Your task to perform on an android device: turn smart compose on in the gmail app Image 0: 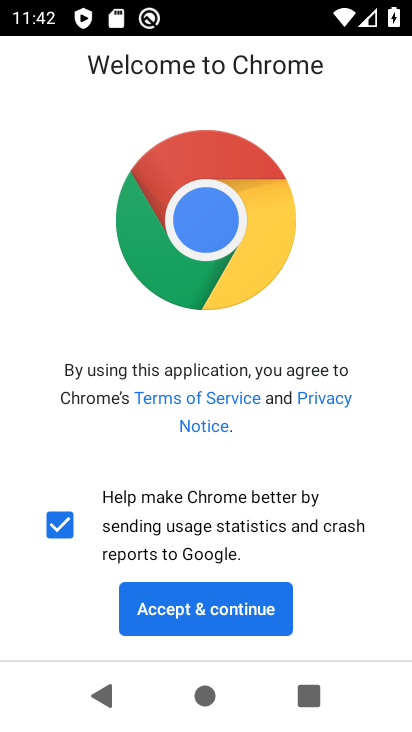
Step 0: press home button
Your task to perform on an android device: turn smart compose on in the gmail app Image 1: 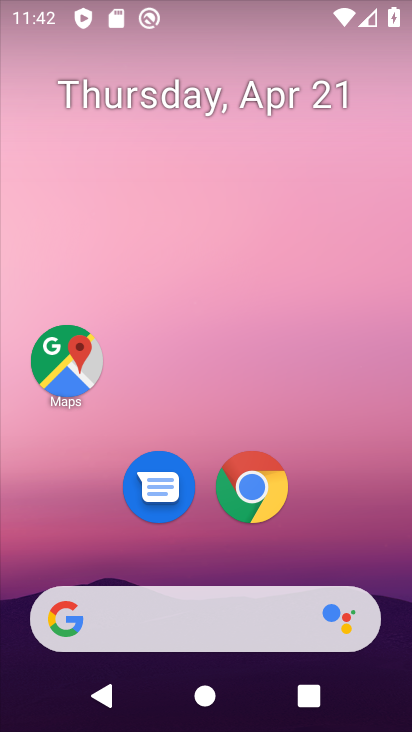
Step 1: drag from (196, 566) to (118, 110)
Your task to perform on an android device: turn smart compose on in the gmail app Image 2: 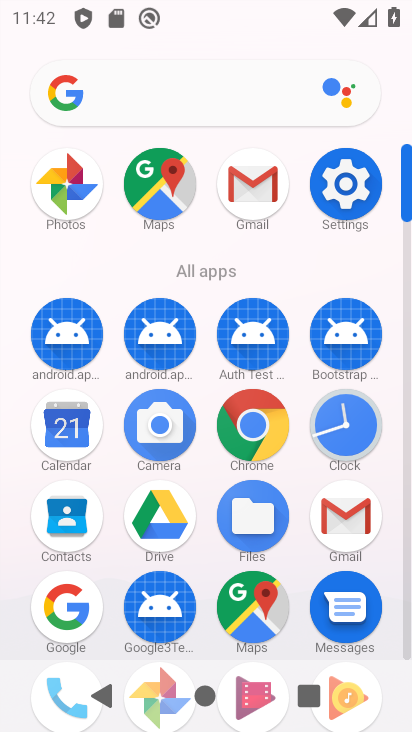
Step 2: click (234, 189)
Your task to perform on an android device: turn smart compose on in the gmail app Image 3: 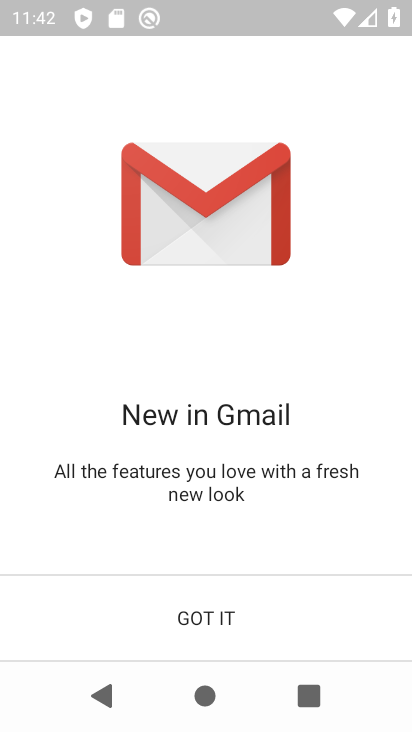
Step 3: click (275, 608)
Your task to perform on an android device: turn smart compose on in the gmail app Image 4: 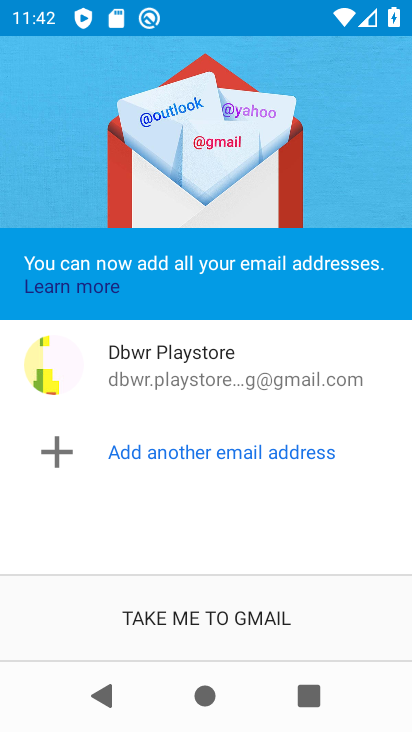
Step 4: click (275, 608)
Your task to perform on an android device: turn smart compose on in the gmail app Image 5: 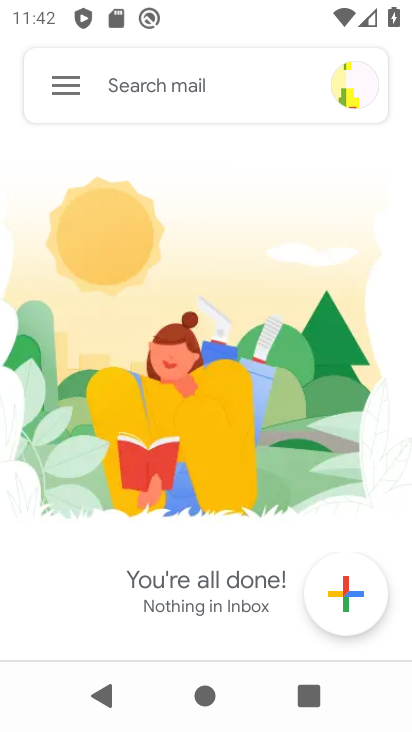
Step 5: click (65, 81)
Your task to perform on an android device: turn smart compose on in the gmail app Image 6: 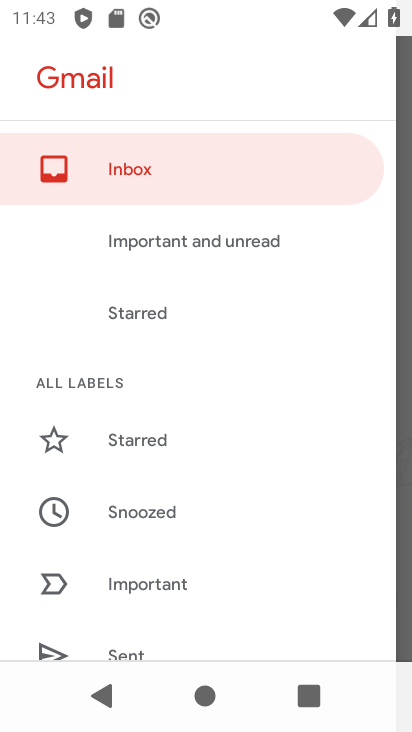
Step 6: drag from (153, 578) to (204, 210)
Your task to perform on an android device: turn smart compose on in the gmail app Image 7: 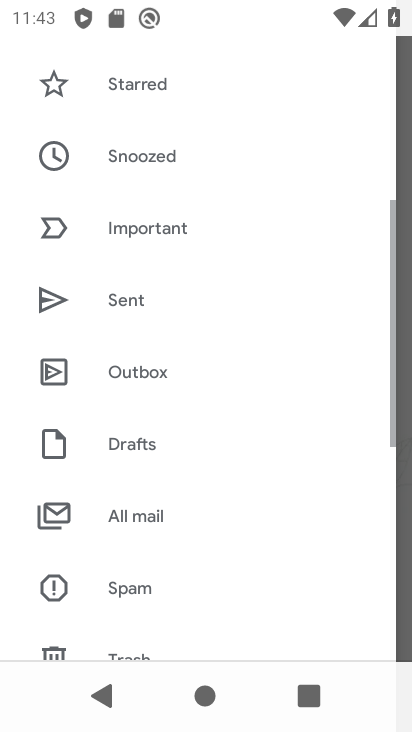
Step 7: drag from (106, 570) to (165, 263)
Your task to perform on an android device: turn smart compose on in the gmail app Image 8: 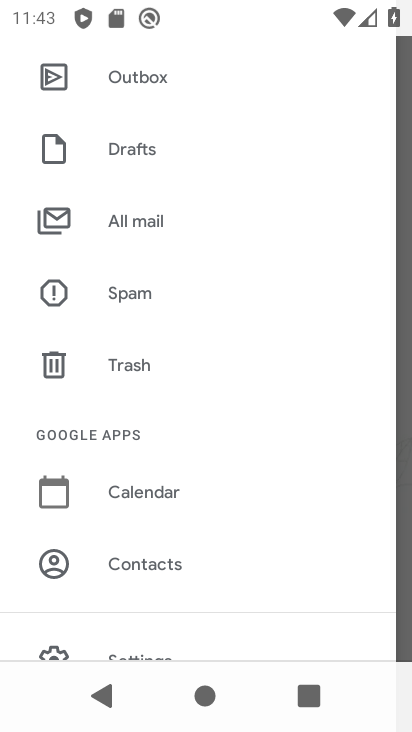
Step 8: drag from (83, 644) to (153, 242)
Your task to perform on an android device: turn smart compose on in the gmail app Image 9: 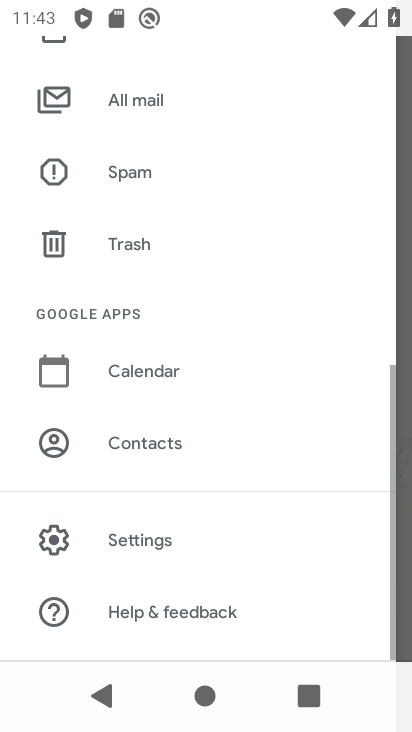
Step 9: click (160, 546)
Your task to perform on an android device: turn smart compose on in the gmail app Image 10: 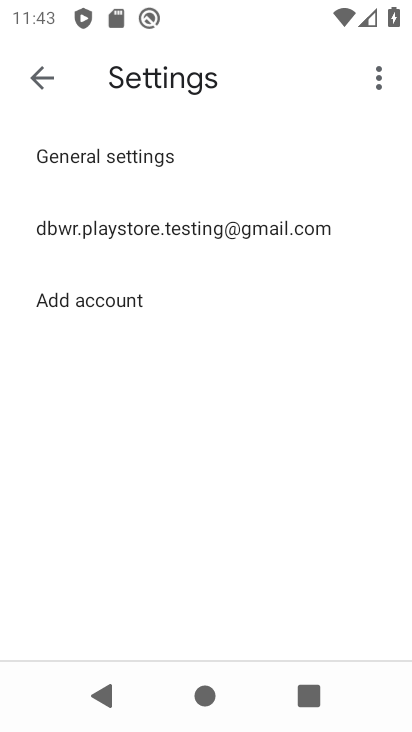
Step 10: click (261, 224)
Your task to perform on an android device: turn smart compose on in the gmail app Image 11: 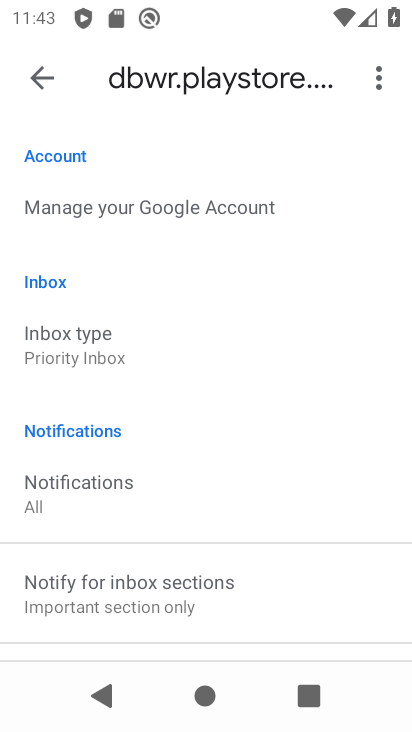
Step 11: task complete